Your task to perform on an android device: Go to network settings Image 0: 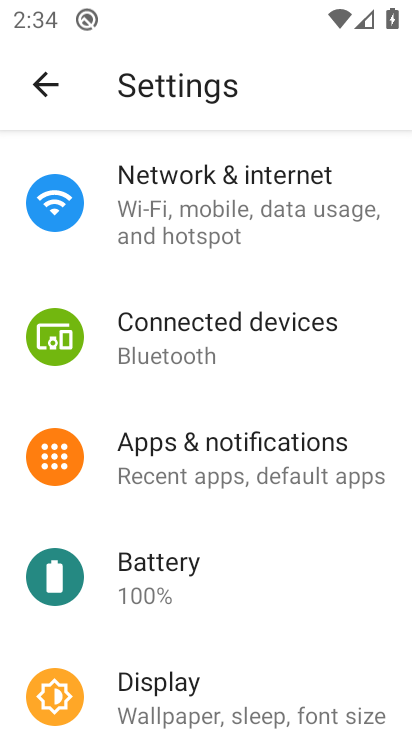
Step 0: press home button
Your task to perform on an android device: Go to network settings Image 1: 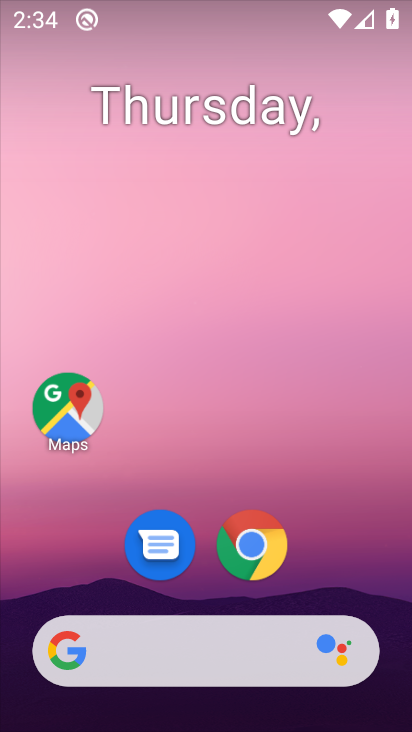
Step 1: drag from (197, 604) to (264, 147)
Your task to perform on an android device: Go to network settings Image 2: 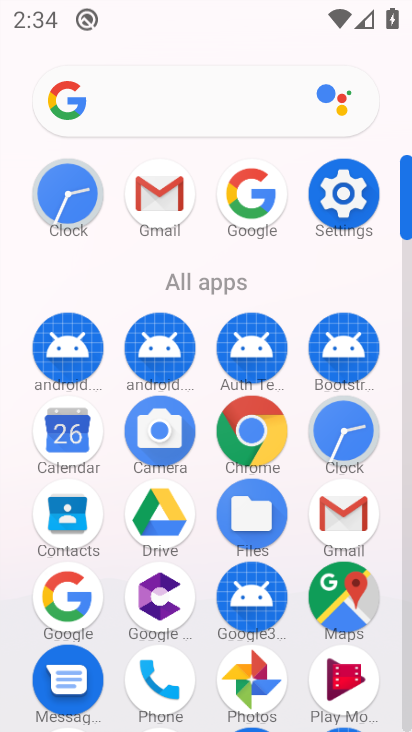
Step 2: click (350, 204)
Your task to perform on an android device: Go to network settings Image 3: 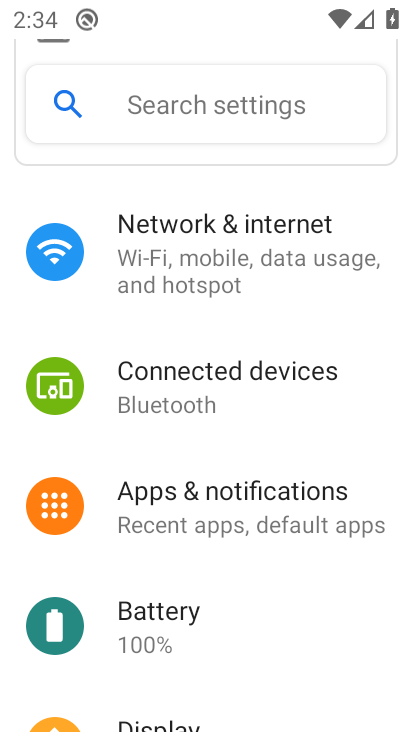
Step 3: click (265, 246)
Your task to perform on an android device: Go to network settings Image 4: 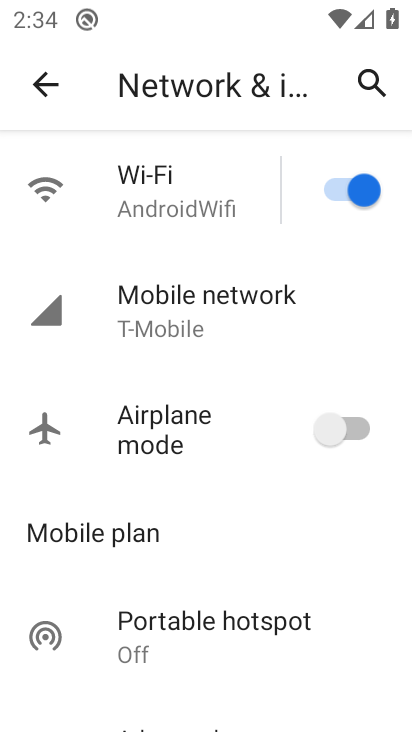
Step 4: click (185, 320)
Your task to perform on an android device: Go to network settings Image 5: 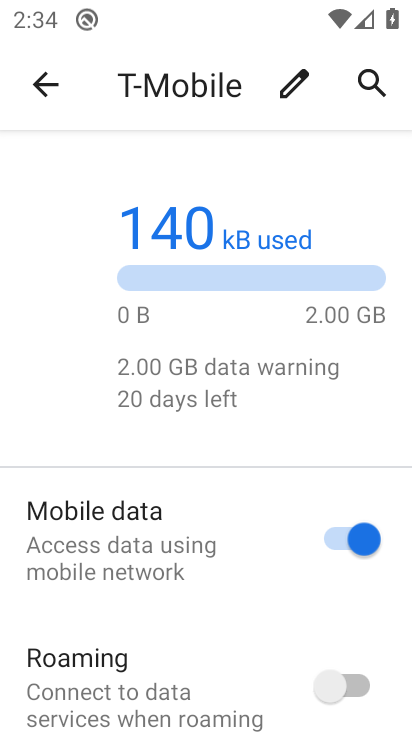
Step 5: task complete